Your task to perform on an android device: Open Google Chrome and click the shortcut for Amazon.com Image 0: 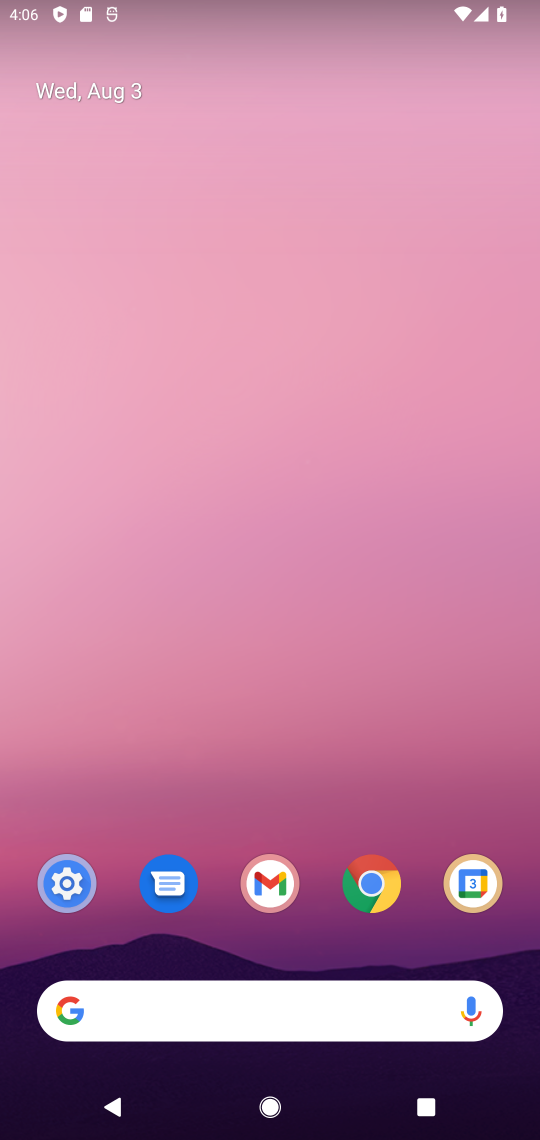
Step 0: click (375, 892)
Your task to perform on an android device: Open Google Chrome and click the shortcut for Amazon.com Image 1: 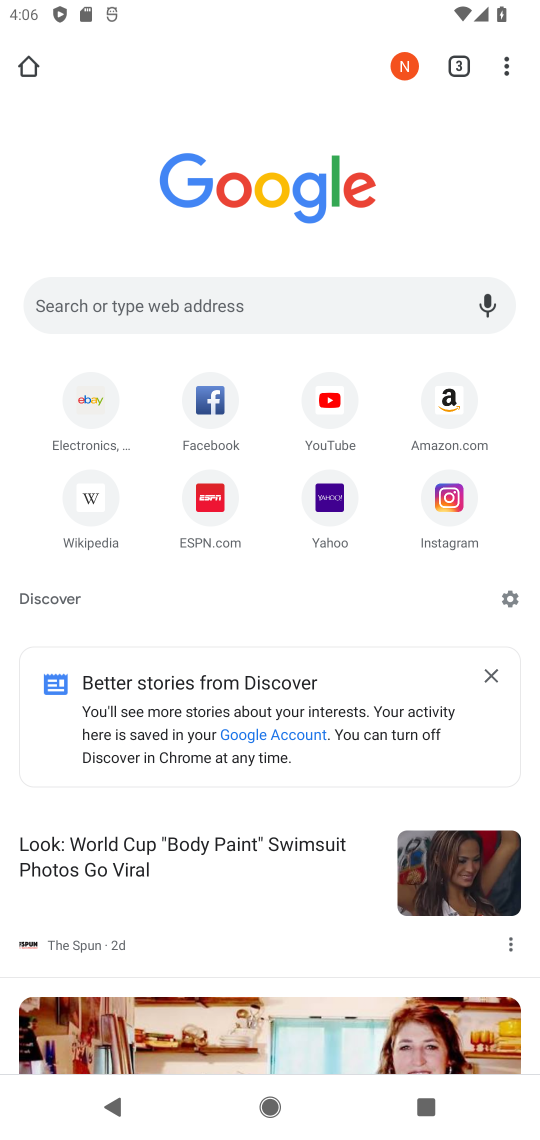
Step 1: click (454, 392)
Your task to perform on an android device: Open Google Chrome and click the shortcut for Amazon.com Image 2: 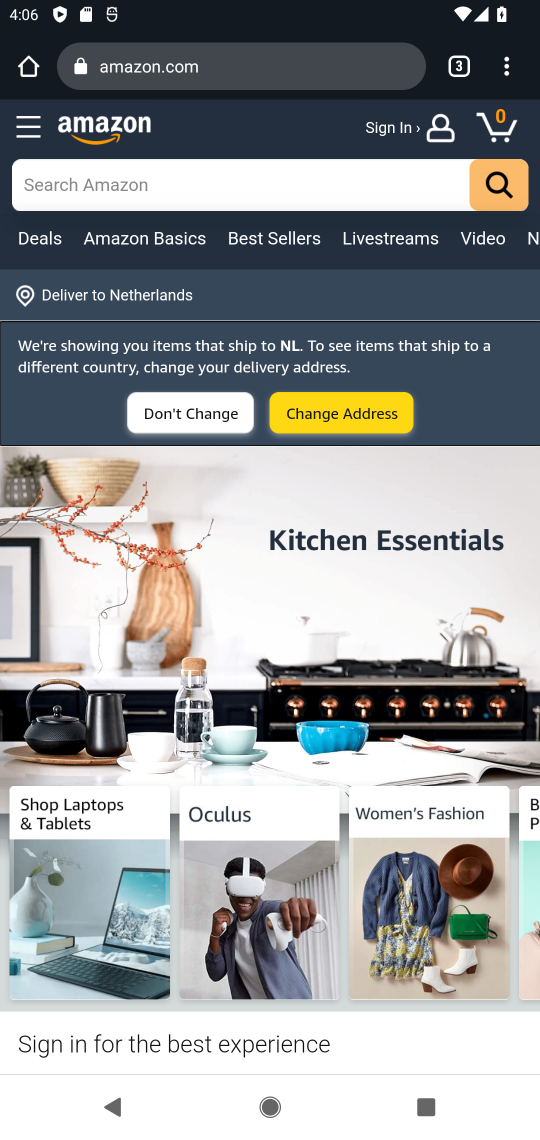
Step 2: task complete